Your task to perform on an android device: turn on airplane mode Image 0: 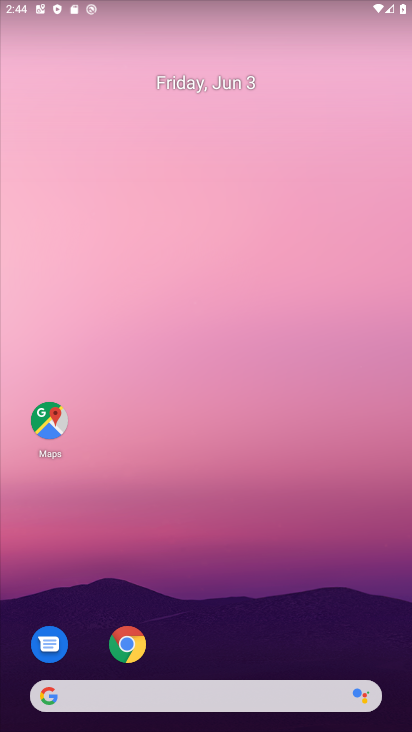
Step 0: drag from (229, 623) to (200, 262)
Your task to perform on an android device: turn on airplane mode Image 1: 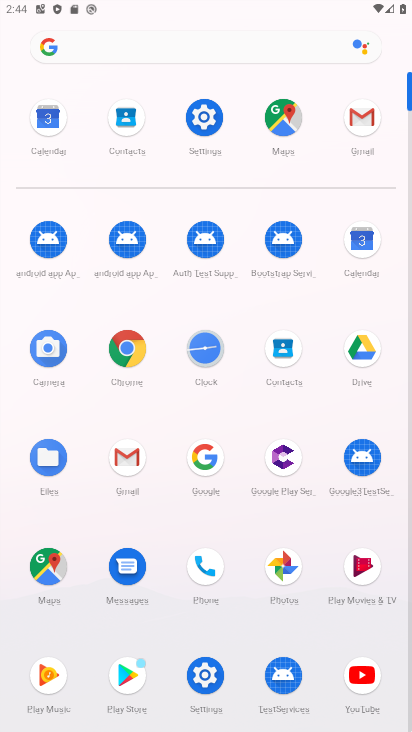
Step 1: click (205, 115)
Your task to perform on an android device: turn on airplane mode Image 2: 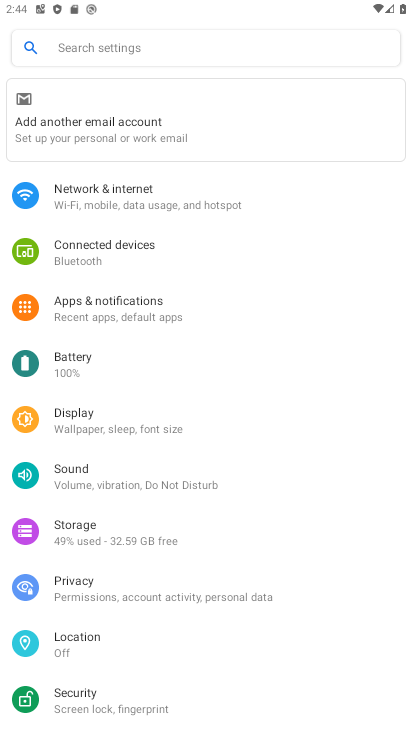
Step 2: click (206, 186)
Your task to perform on an android device: turn on airplane mode Image 3: 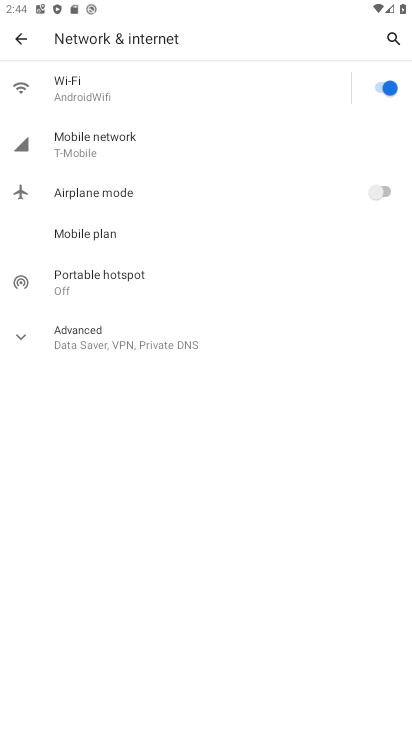
Step 3: click (382, 189)
Your task to perform on an android device: turn on airplane mode Image 4: 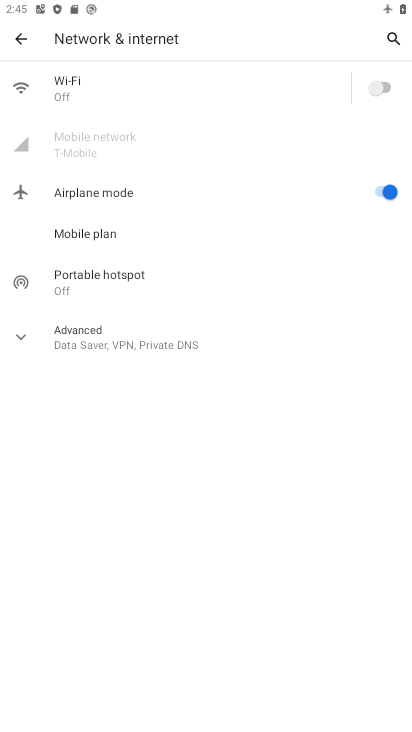
Step 4: task complete